Your task to perform on an android device: Empty the shopping cart on costco. Add jbl flip 4 to the cart on costco Image 0: 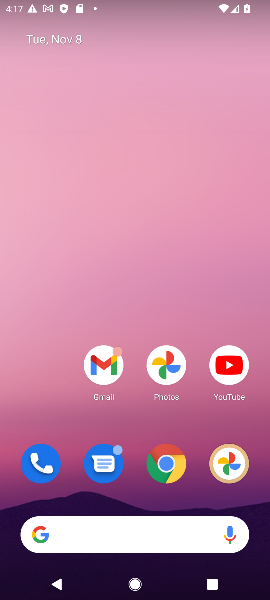
Step 0: click (162, 464)
Your task to perform on an android device: Empty the shopping cart on costco. Add jbl flip 4 to the cart on costco Image 1: 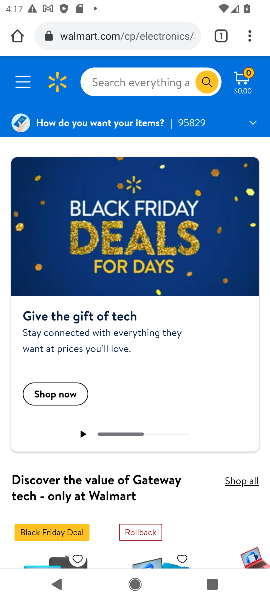
Step 1: click (110, 31)
Your task to perform on an android device: Empty the shopping cart on costco. Add jbl flip 4 to the cart on costco Image 2: 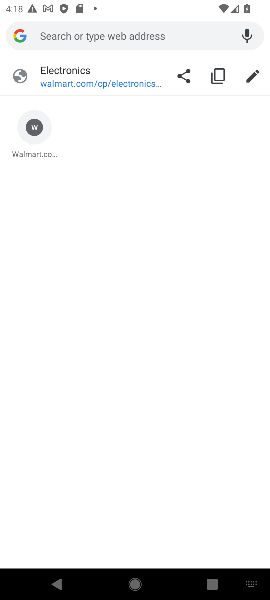
Step 2: type "costco"
Your task to perform on an android device: Empty the shopping cart on costco. Add jbl flip 4 to the cart on costco Image 3: 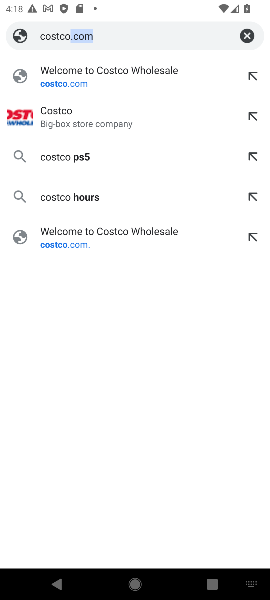
Step 3: click (83, 122)
Your task to perform on an android device: Empty the shopping cart on costco. Add jbl flip 4 to the cart on costco Image 4: 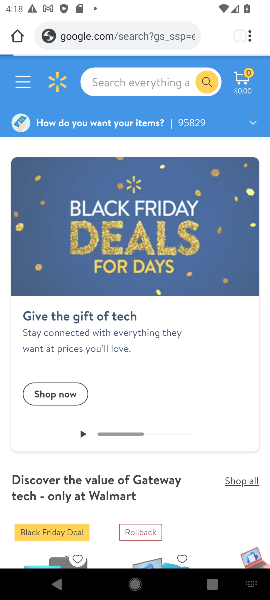
Step 4: click (69, 121)
Your task to perform on an android device: Empty the shopping cart on costco. Add jbl flip 4 to the cart on costco Image 5: 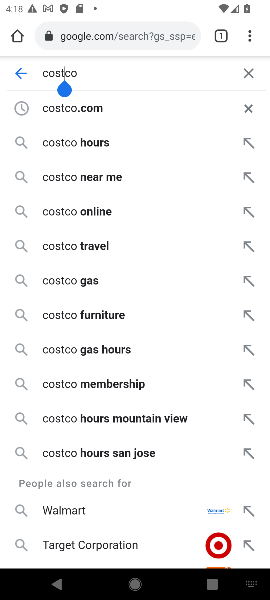
Step 5: click (72, 109)
Your task to perform on an android device: Empty the shopping cart on costco. Add jbl flip 4 to the cart on costco Image 6: 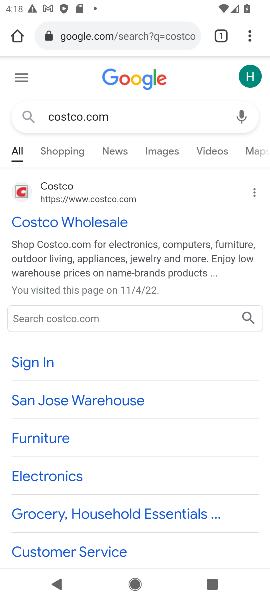
Step 6: click (108, 225)
Your task to perform on an android device: Empty the shopping cart on costco. Add jbl flip 4 to the cart on costco Image 7: 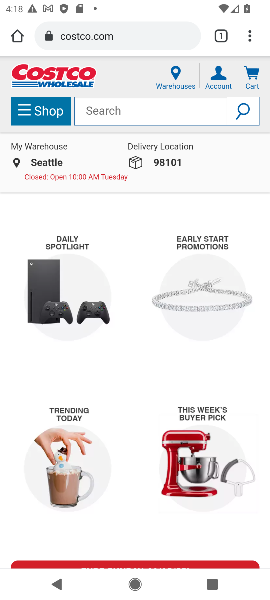
Step 7: click (250, 68)
Your task to perform on an android device: Empty the shopping cart on costco. Add jbl flip 4 to the cart on costco Image 8: 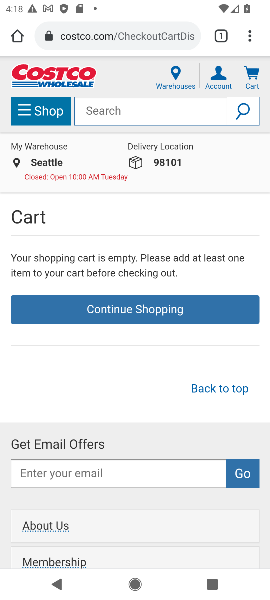
Step 8: click (248, 73)
Your task to perform on an android device: Empty the shopping cart on costco. Add jbl flip 4 to the cart on costco Image 9: 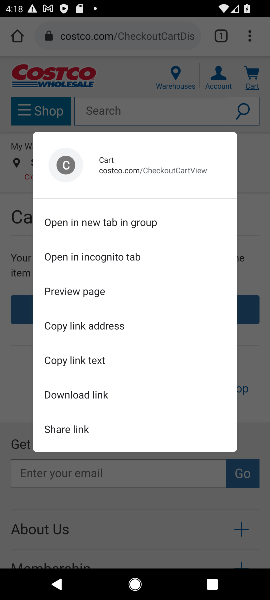
Step 9: click (98, 114)
Your task to perform on an android device: Empty the shopping cart on costco. Add jbl flip 4 to the cart on costco Image 10: 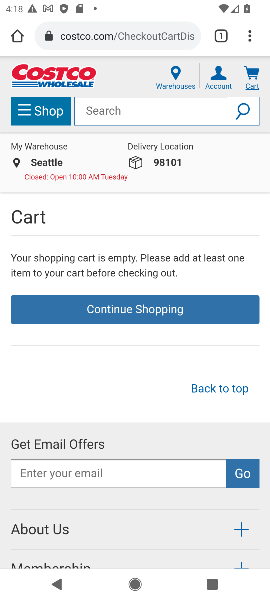
Step 10: click (145, 117)
Your task to perform on an android device: Empty the shopping cart on costco. Add jbl flip 4 to the cart on costco Image 11: 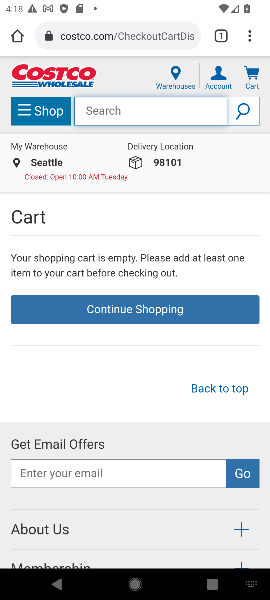
Step 11: type "jbl flip 4"
Your task to perform on an android device: Empty the shopping cart on costco. Add jbl flip 4 to the cart on costco Image 12: 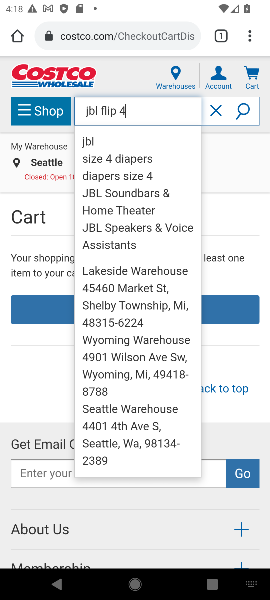
Step 12: click (236, 109)
Your task to perform on an android device: Empty the shopping cart on costco. Add jbl flip 4 to the cart on costco Image 13: 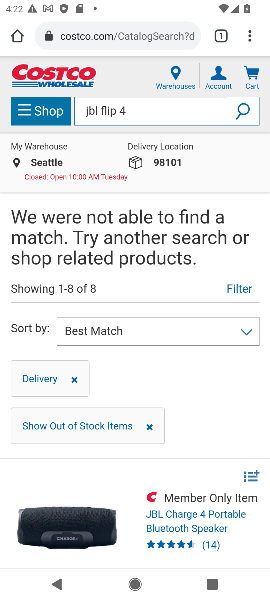
Step 13: task complete